Your task to perform on an android device: Go to eBay Image 0: 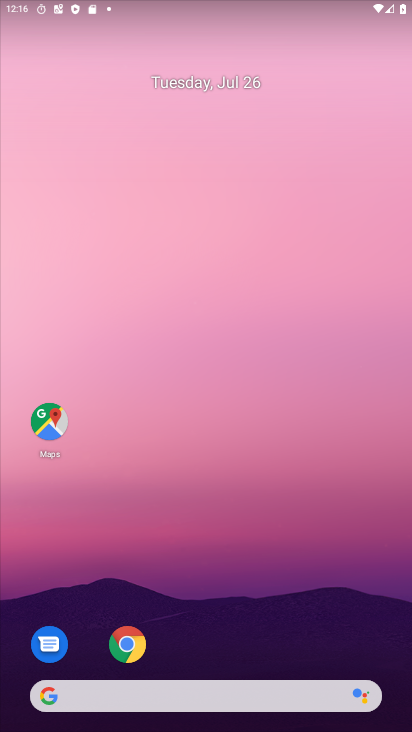
Step 0: drag from (233, 598) to (212, 6)
Your task to perform on an android device: Go to eBay Image 1: 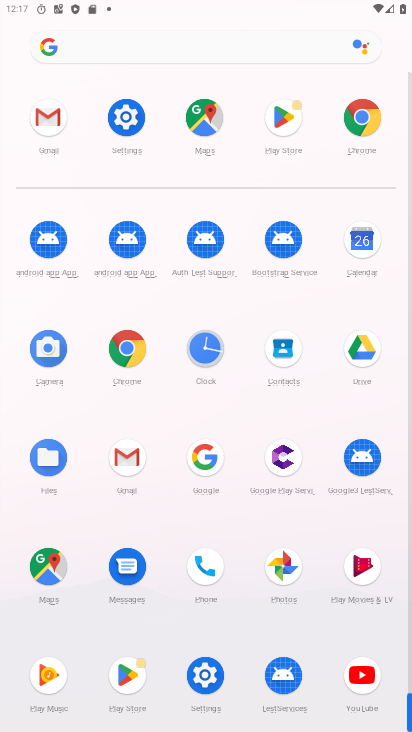
Step 1: click (357, 120)
Your task to perform on an android device: Go to eBay Image 2: 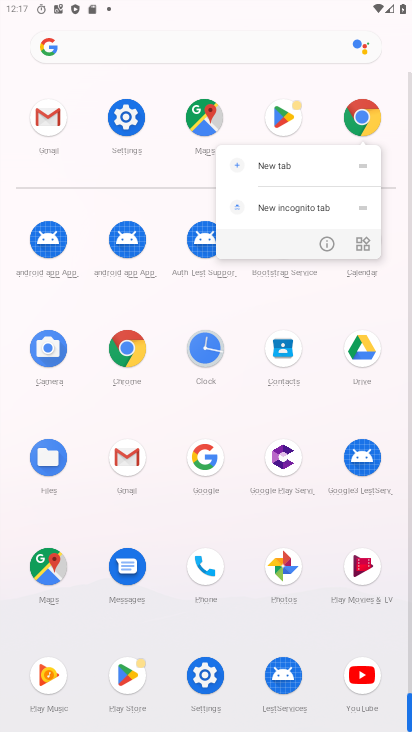
Step 2: click (362, 129)
Your task to perform on an android device: Go to eBay Image 3: 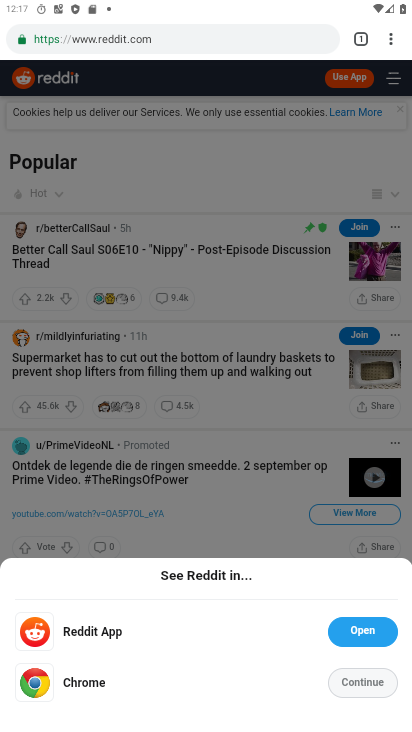
Step 3: press back button
Your task to perform on an android device: Go to eBay Image 4: 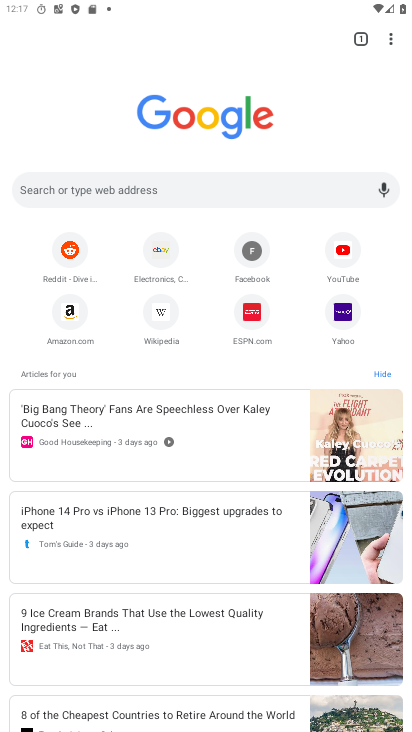
Step 4: click (168, 251)
Your task to perform on an android device: Go to eBay Image 5: 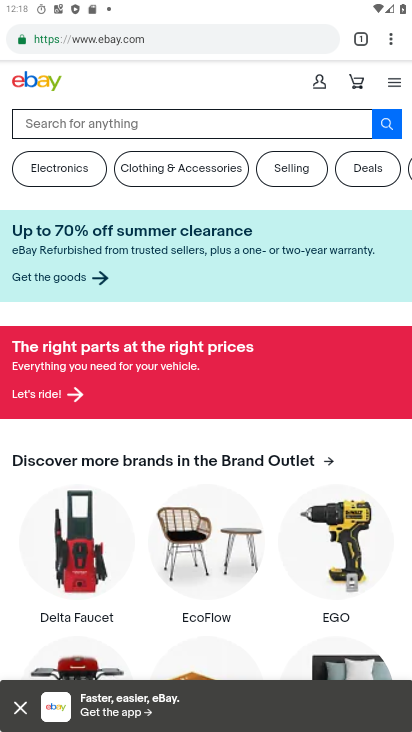
Step 5: task complete